Your task to perform on an android device: visit the assistant section in the google photos Image 0: 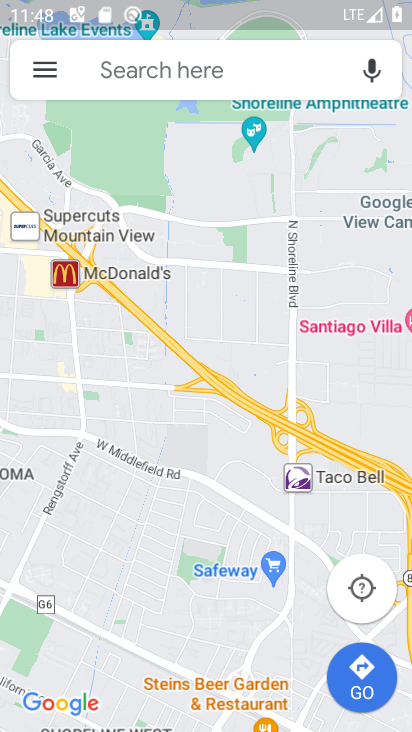
Step 0: press home button
Your task to perform on an android device: visit the assistant section in the google photos Image 1: 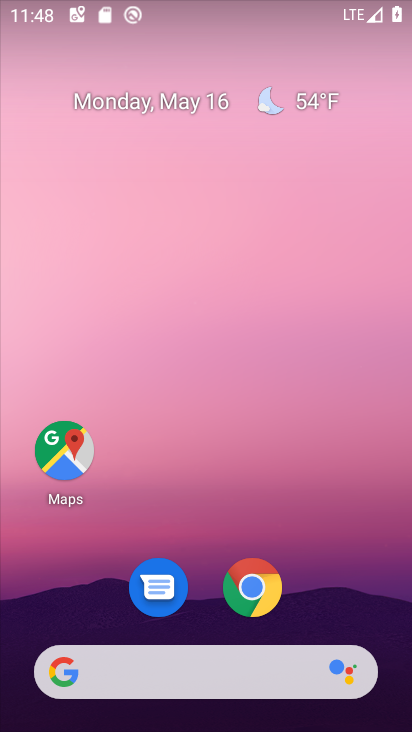
Step 1: drag from (220, 605) to (290, 104)
Your task to perform on an android device: visit the assistant section in the google photos Image 2: 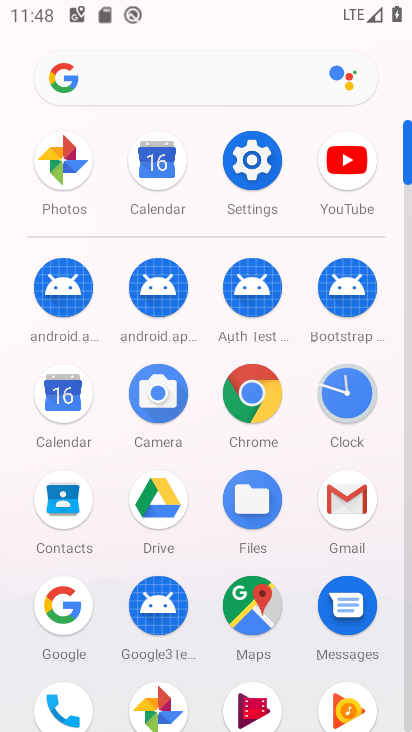
Step 2: drag from (196, 590) to (244, 255)
Your task to perform on an android device: visit the assistant section in the google photos Image 3: 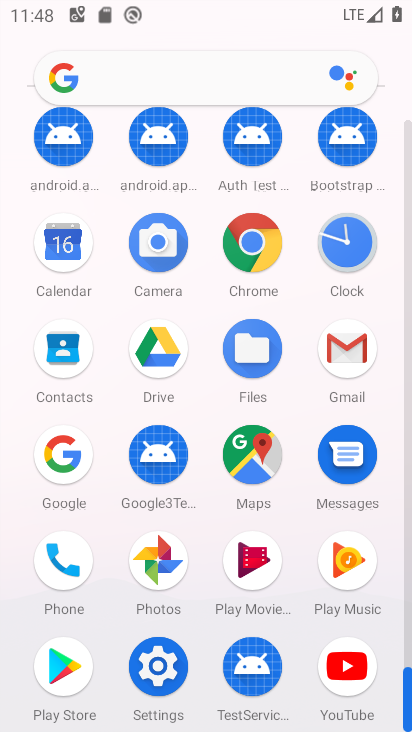
Step 3: click (158, 574)
Your task to perform on an android device: visit the assistant section in the google photos Image 4: 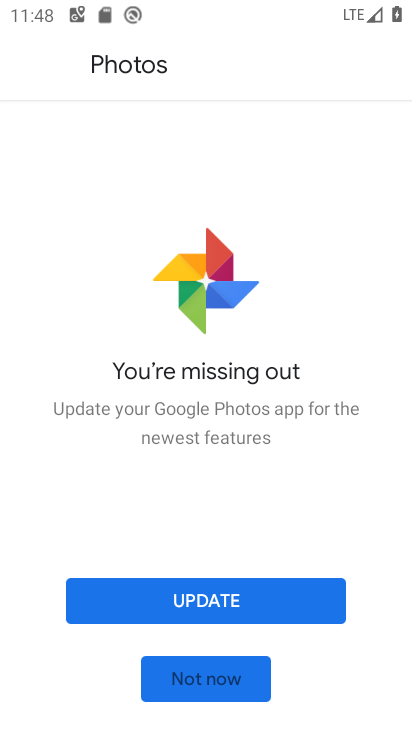
Step 4: click (199, 676)
Your task to perform on an android device: visit the assistant section in the google photos Image 5: 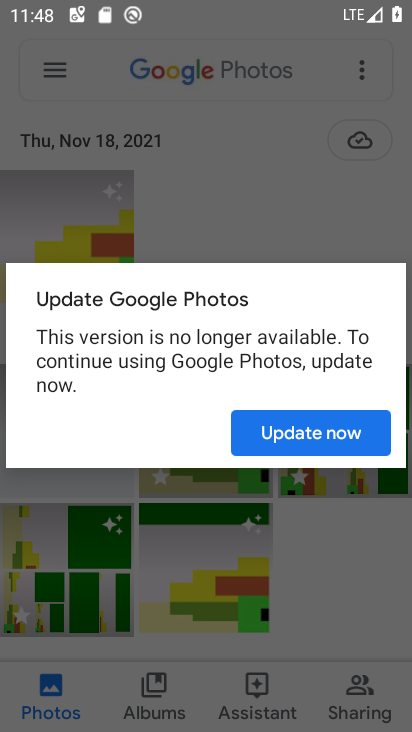
Step 5: click (297, 442)
Your task to perform on an android device: visit the assistant section in the google photos Image 6: 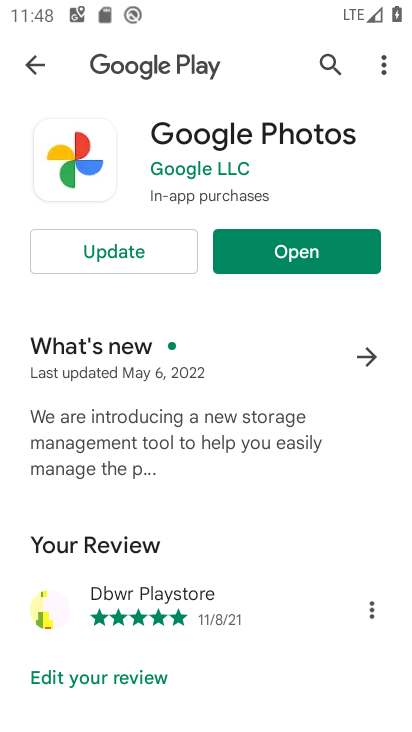
Step 6: click (262, 247)
Your task to perform on an android device: visit the assistant section in the google photos Image 7: 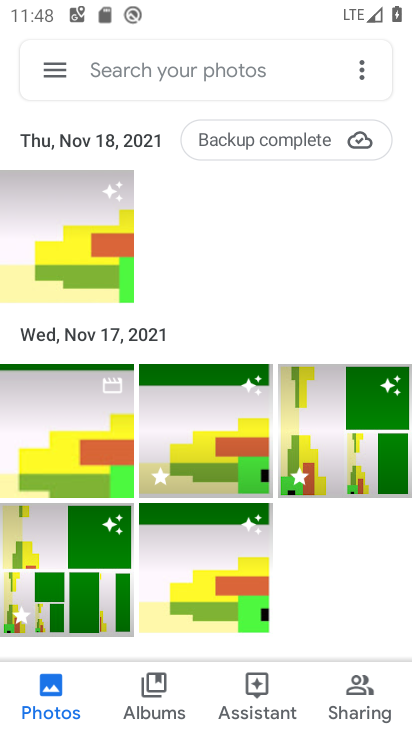
Step 7: click (260, 695)
Your task to perform on an android device: visit the assistant section in the google photos Image 8: 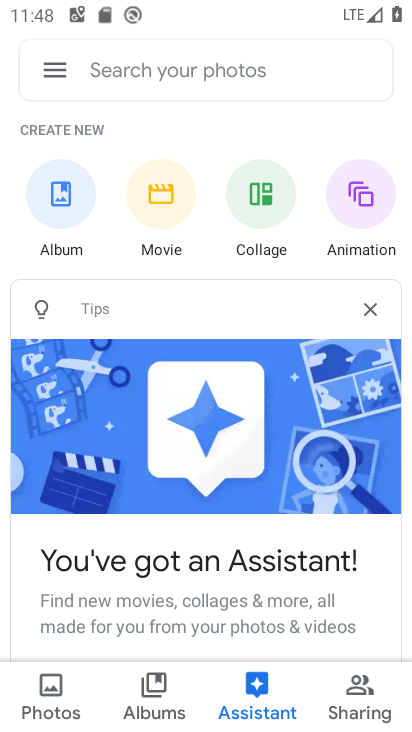
Step 8: task complete